Your task to perform on an android device: turn on notifications settings in the gmail app Image 0: 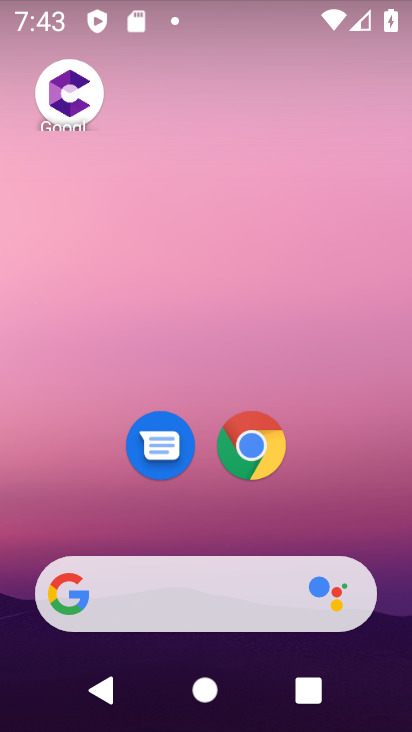
Step 0: drag from (218, 316) to (218, 58)
Your task to perform on an android device: turn on notifications settings in the gmail app Image 1: 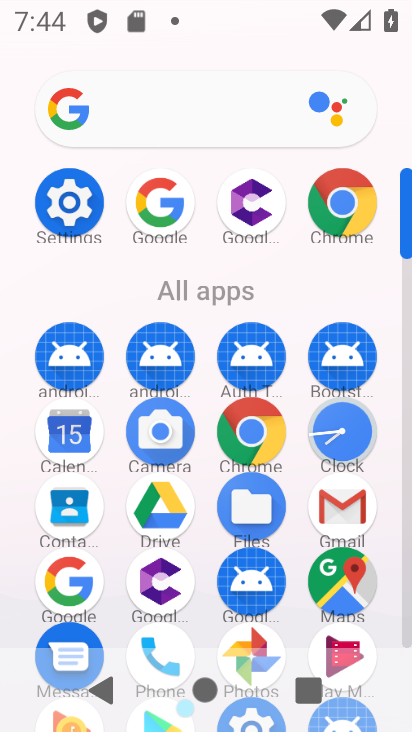
Step 1: click (354, 515)
Your task to perform on an android device: turn on notifications settings in the gmail app Image 2: 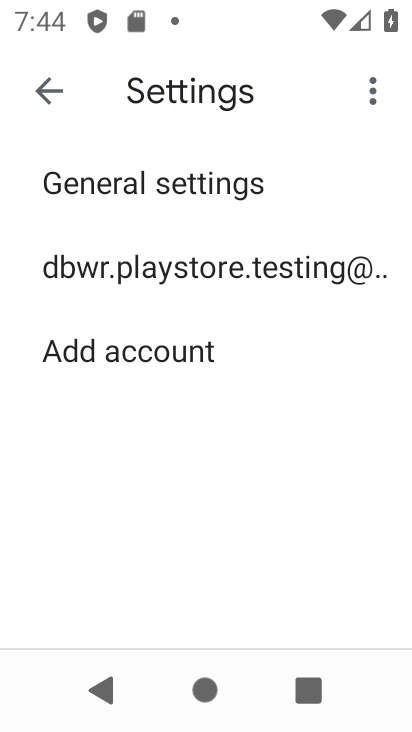
Step 2: click (177, 193)
Your task to perform on an android device: turn on notifications settings in the gmail app Image 3: 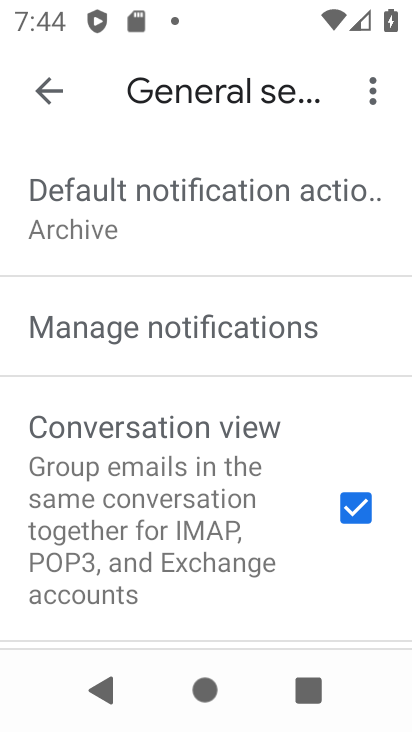
Step 3: click (270, 323)
Your task to perform on an android device: turn on notifications settings in the gmail app Image 4: 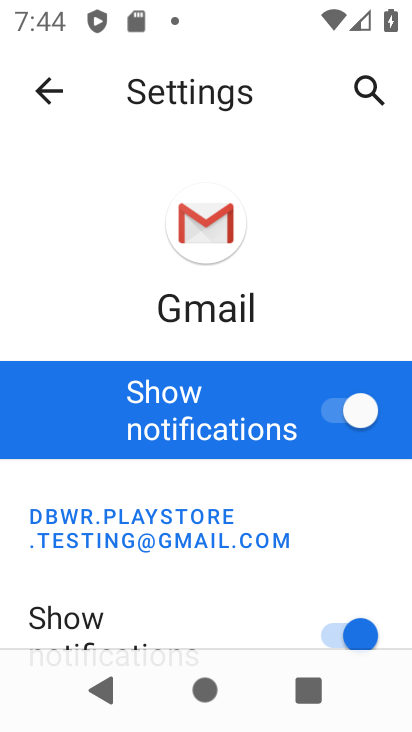
Step 4: task complete